Your task to perform on an android device: check google app version Image 0: 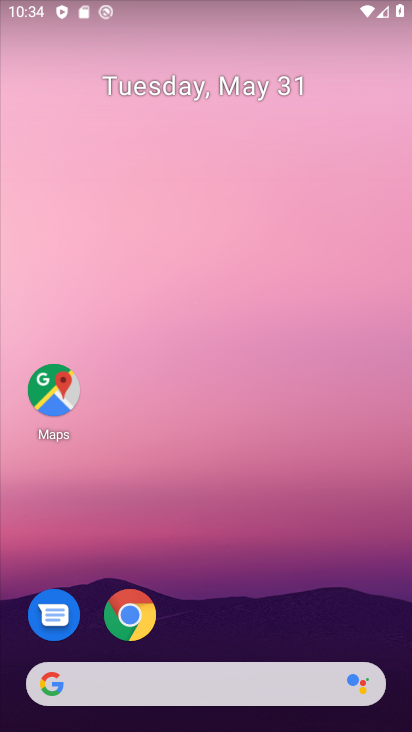
Step 0: click (151, 618)
Your task to perform on an android device: check google app version Image 1: 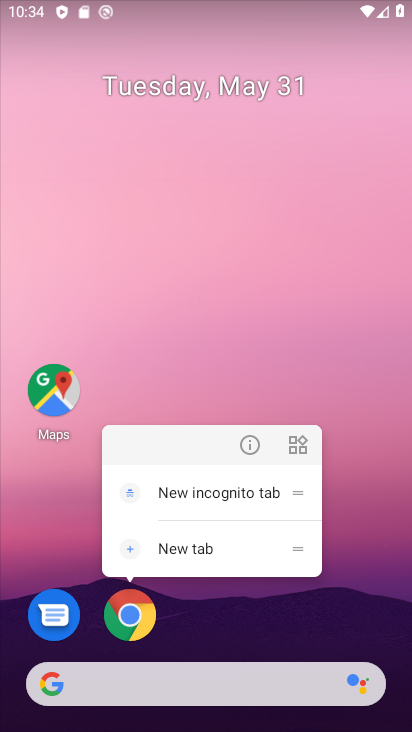
Step 1: click (251, 437)
Your task to perform on an android device: check google app version Image 2: 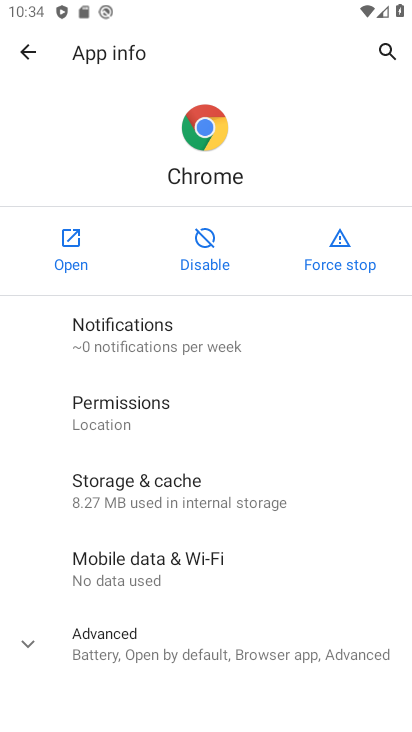
Step 2: click (210, 626)
Your task to perform on an android device: check google app version Image 3: 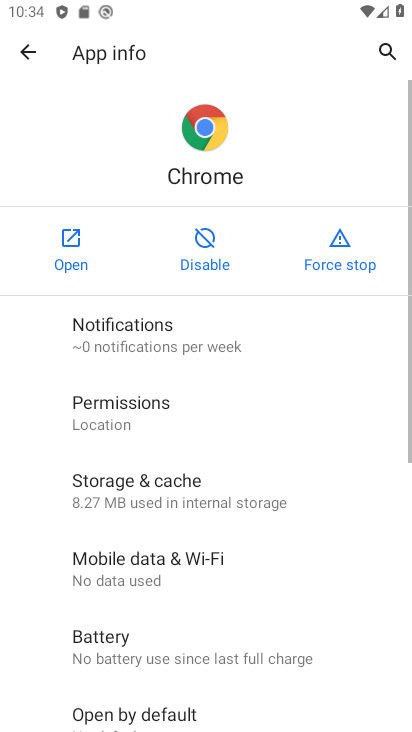
Step 3: task complete